Your task to perform on an android device: turn pop-ups off in chrome Image 0: 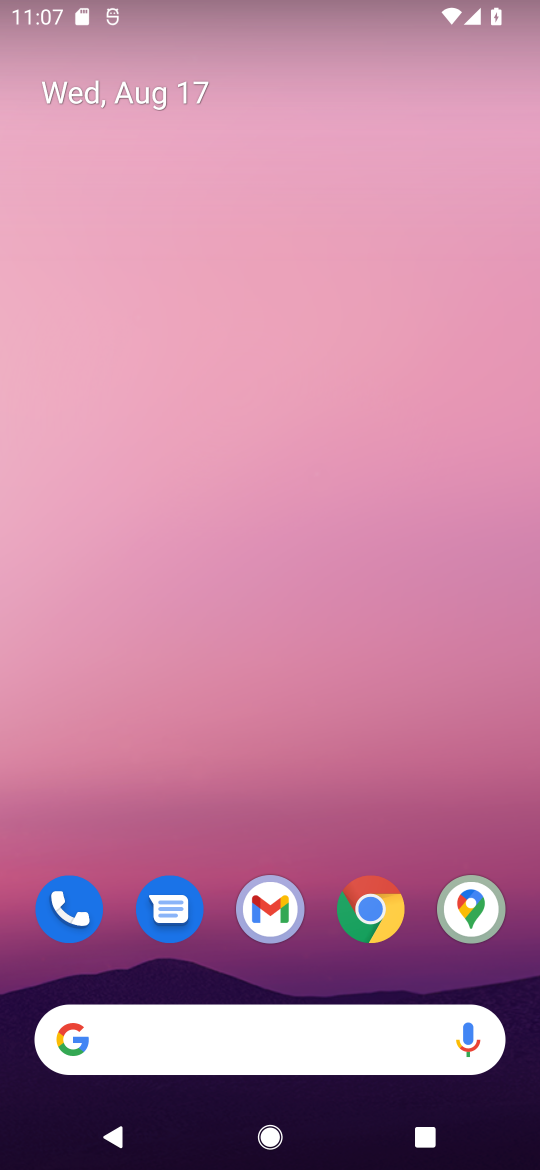
Step 0: click (364, 933)
Your task to perform on an android device: turn pop-ups off in chrome Image 1: 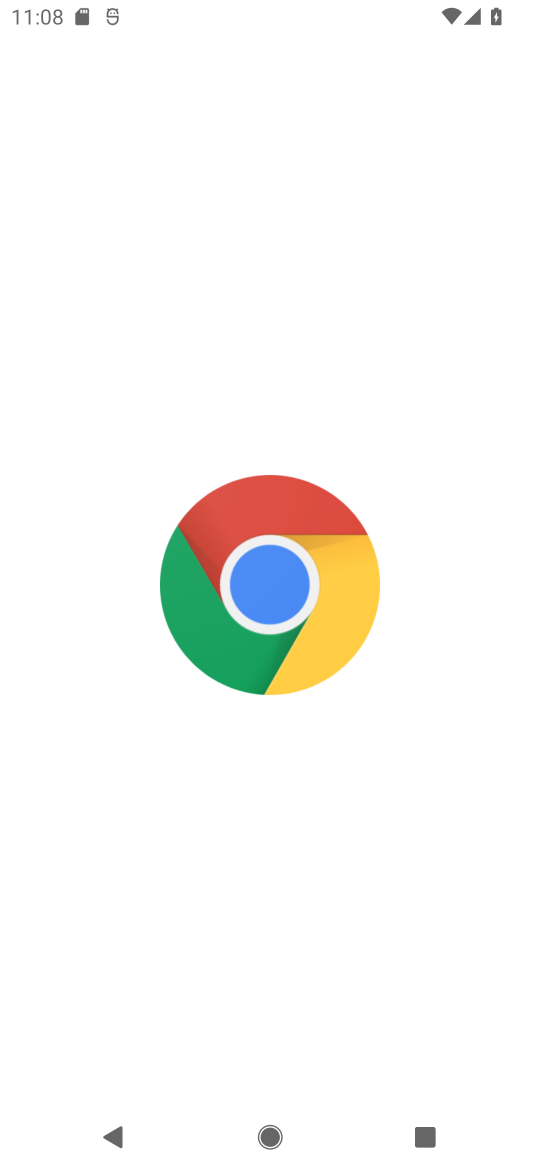
Step 1: task complete